Your task to perform on an android device: Open calendar and show me the fourth week of next month Image 0: 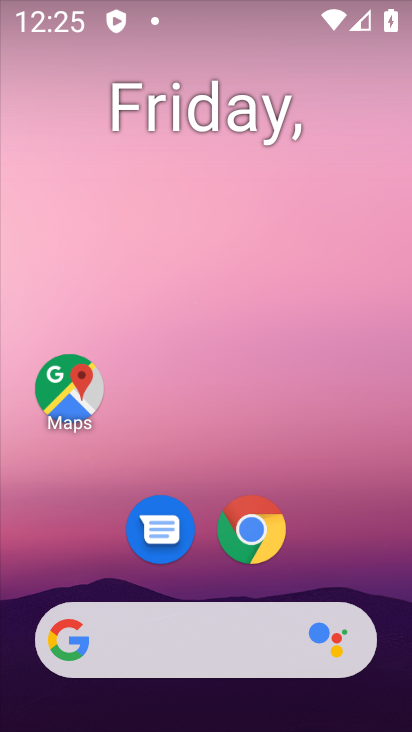
Step 0: drag from (235, 608) to (237, 265)
Your task to perform on an android device: Open calendar and show me the fourth week of next month Image 1: 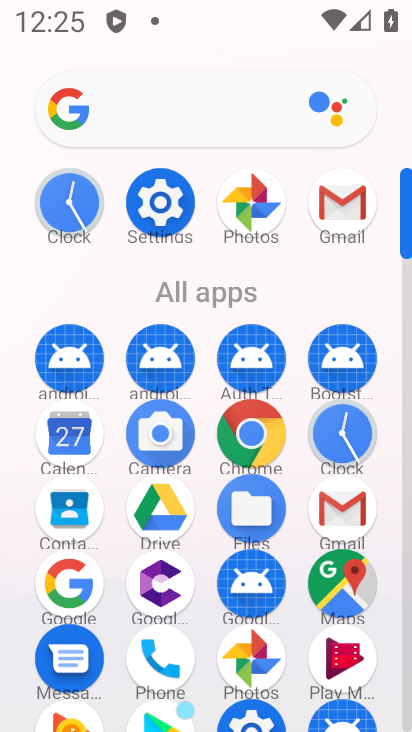
Step 1: click (69, 440)
Your task to perform on an android device: Open calendar and show me the fourth week of next month Image 2: 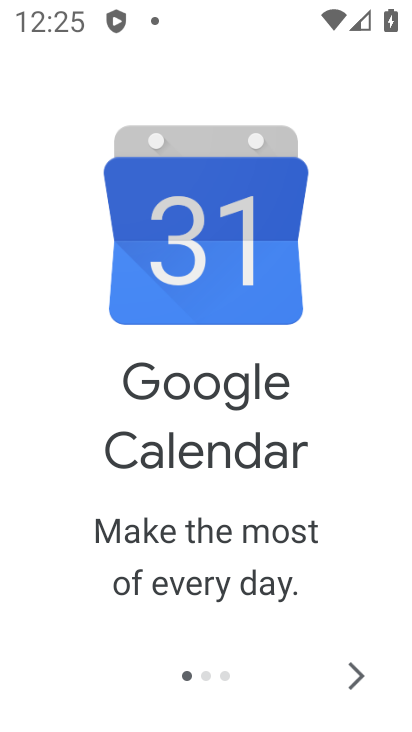
Step 2: click (355, 669)
Your task to perform on an android device: Open calendar and show me the fourth week of next month Image 3: 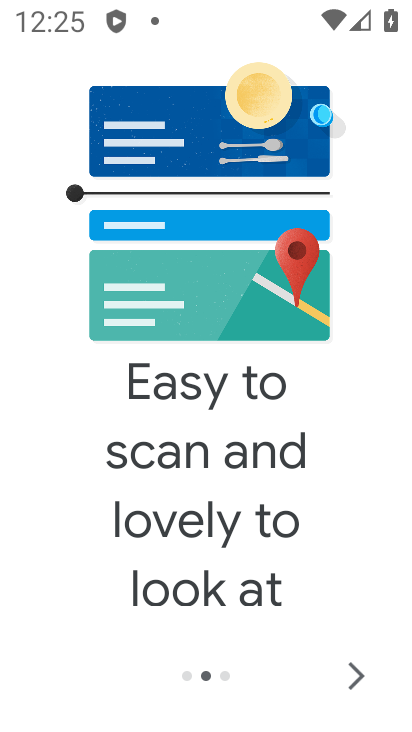
Step 3: click (349, 675)
Your task to perform on an android device: Open calendar and show me the fourth week of next month Image 4: 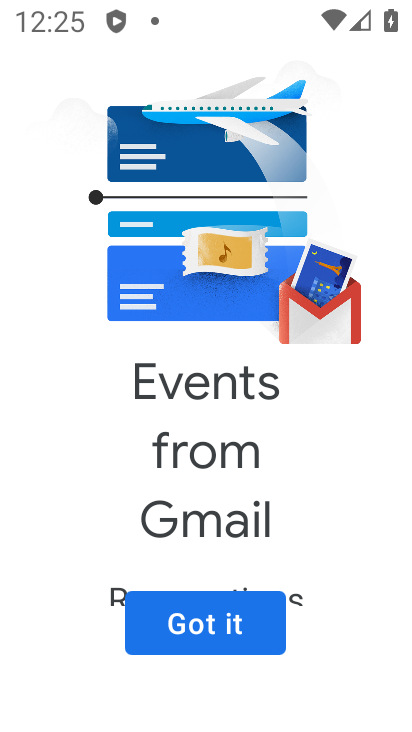
Step 4: click (232, 631)
Your task to perform on an android device: Open calendar and show me the fourth week of next month Image 5: 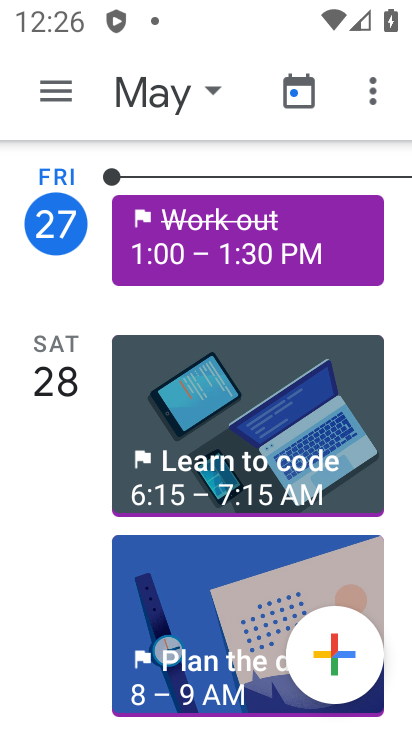
Step 5: drag from (158, 645) to (164, 306)
Your task to perform on an android device: Open calendar and show me the fourth week of next month Image 6: 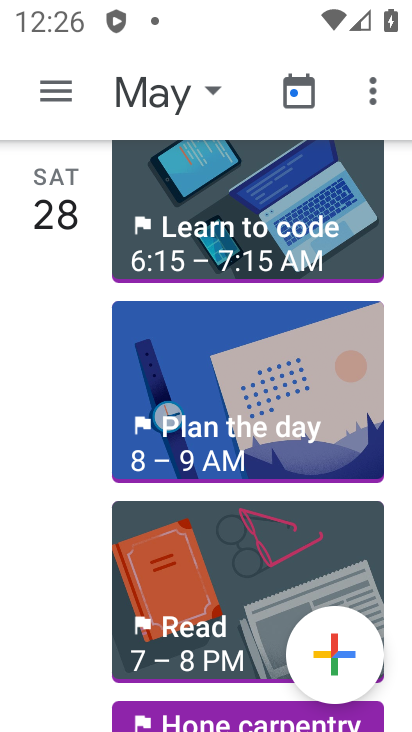
Step 6: click (180, 95)
Your task to perform on an android device: Open calendar and show me the fourth week of next month Image 7: 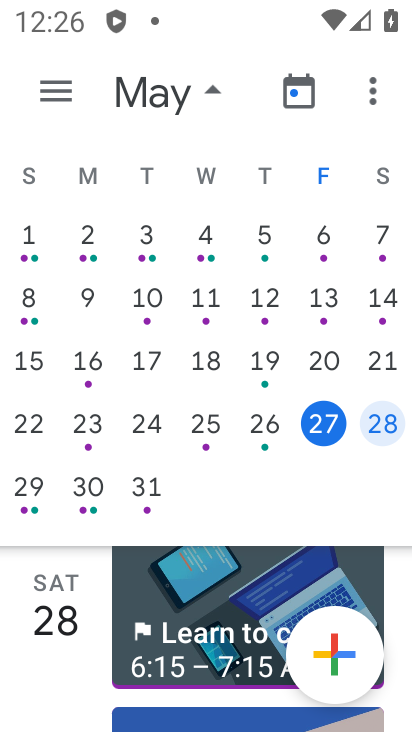
Step 7: drag from (385, 289) to (28, 347)
Your task to perform on an android device: Open calendar and show me the fourth week of next month Image 8: 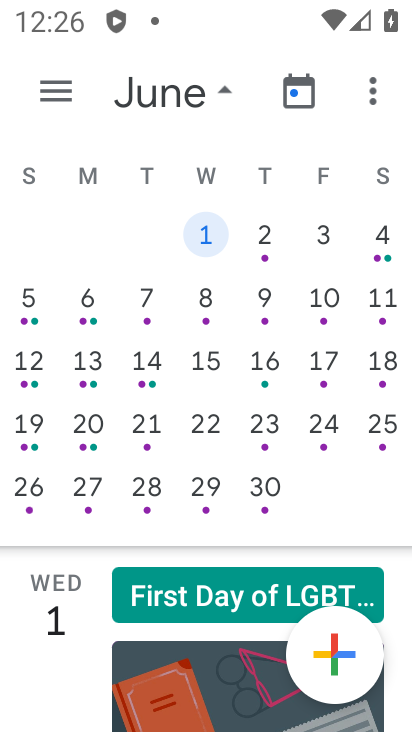
Step 8: click (31, 422)
Your task to perform on an android device: Open calendar and show me the fourth week of next month Image 9: 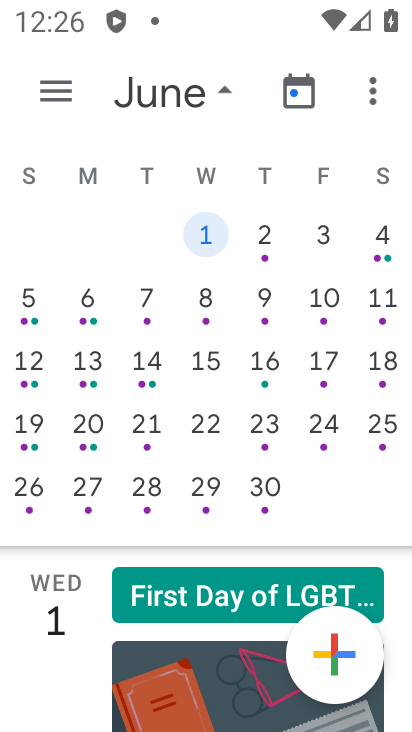
Step 9: click (52, 421)
Your task to perform on an android device: Open calendar and show me the fourth week of next month Image 10: 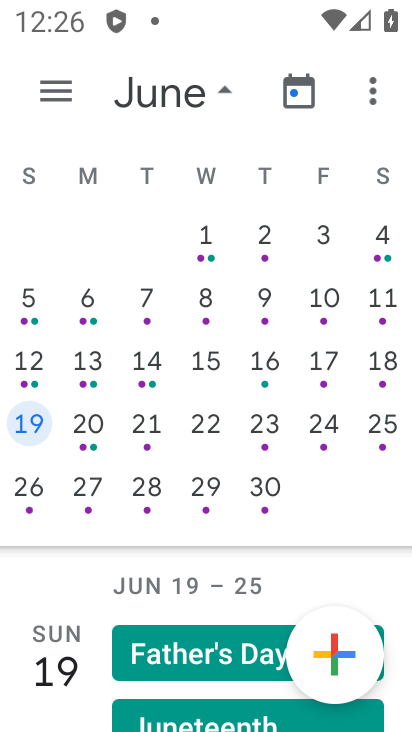
Step 10: task complete